Your task to perform on an android device: Search for macbook pro 13 inch on target, select the first entry, add it to the cart, then select checkout. Image 0: 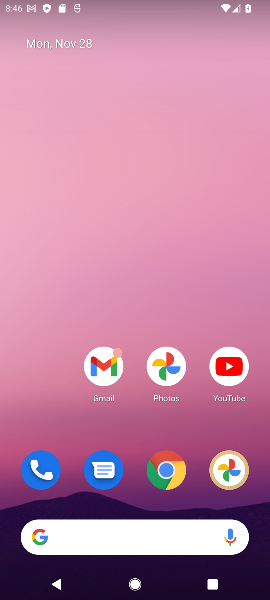
Step 0: click (118, 529)
Your task to perform on an android device: Search for macbook pro 13 inch on target, select the first entry, add it to the cart, then select checkout. Image 1: 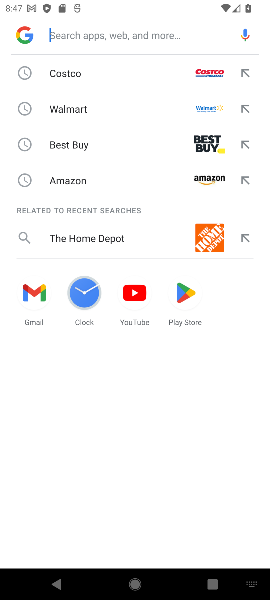
Step 1: press home button
Your task to perform on an android device: Search for macbook pro 13 inch on target, select the first entry, add it to the cart, then select checkout. Image 2: 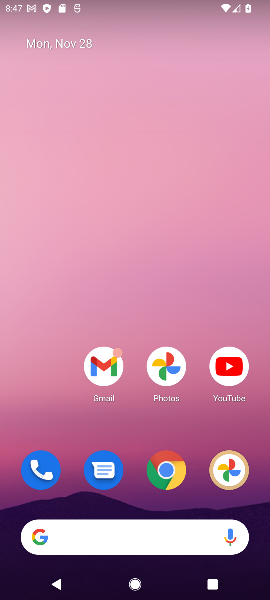
Step 2: click (129, 533)
Your task to perform on an android device: Search for macbook pro 13 inch on target, select the first entry, add it to the cart, then select checkout. Image 3: 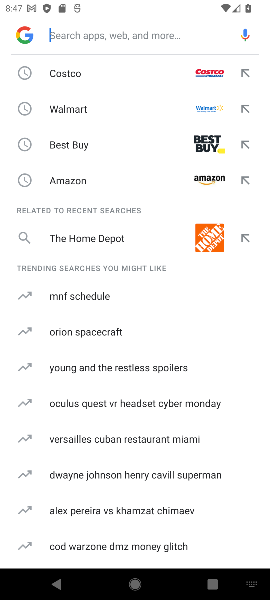
Step 3: type "target"
Your task to perform on an android device: Search for macbook pro 13 inch on target, select the first entry, add it to the cart, then select checkout. Image 4: 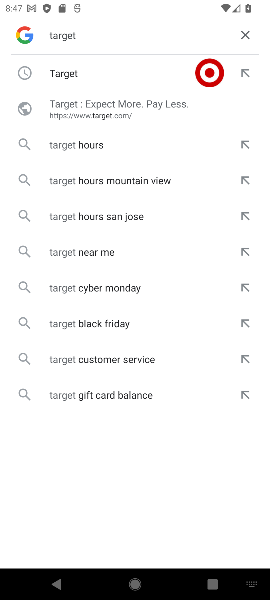
Step 4: click (94, 76)
Your task to perform on an android device: Search for macbook pro 13 inch on target, select the first entry, add it to the cart, then select checkout. Image 5: 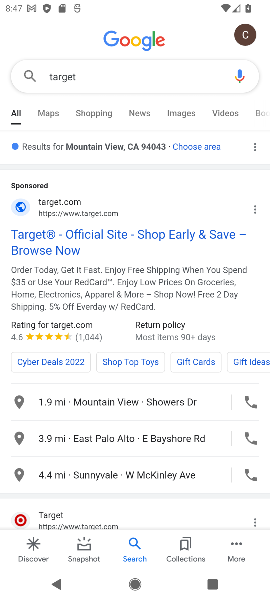
Step 5: drag from (87, 464) to (84, 269)
Your task to perform on an android device: Search for macbook pro 13 inch on target, select the first entry, add it to the cart, then select checkout. Image 6: 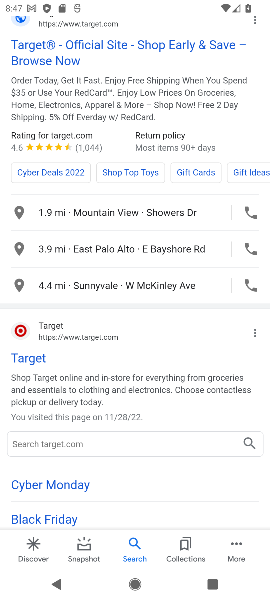
Step 6: click (22, 367)
Your task to perform on an android device: Search for macbook pro 13 inch on target, select the first entry, add it to the cart, then select checkout. Image 7: 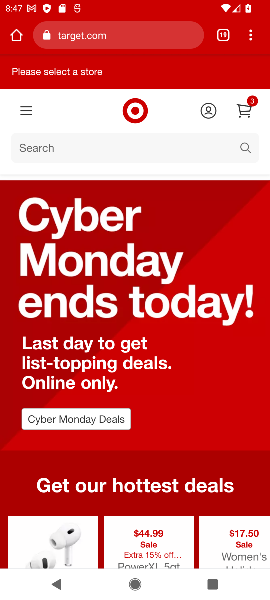
Step 7: click (155, 139)
Your task to perform on an android device: Search for macbook pro 13 inch on target, select the first entry, add it to the cart, then select checkout. Image 8: 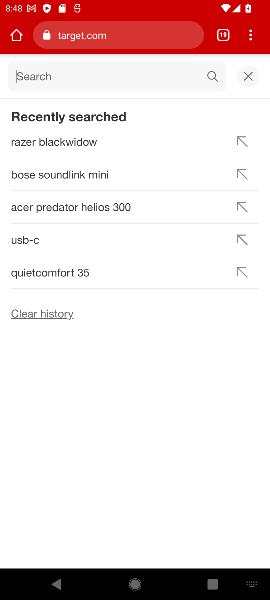
Step 8: type "macbook pro 13 inch "
Your task to perform on an android device: Search for macbook pro 13 inch on target, select the first entry, add it to the cart, then select checkout. Image 9: 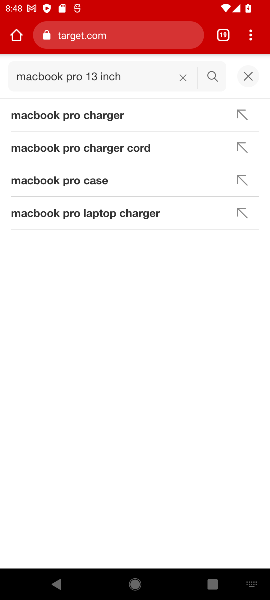
Step 9: click (211, 75)
Your task to perform on an android device: Search for macbook pro 13 inch on target, select the first entry, add it to the cart, then select checkout. Image 10: 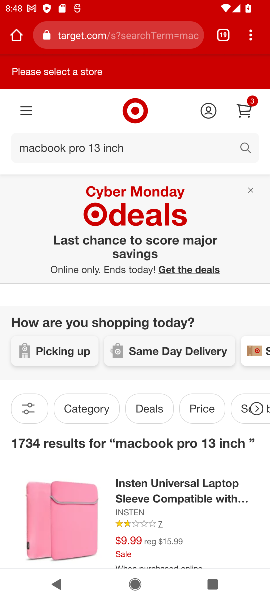
Step 10: drag from (179, 506) to (221, 293)
Your task to perform on an android device: Search for macbook pro 13 inch on target, select the first entry, add it to the cart, then select checkout. Image 11: 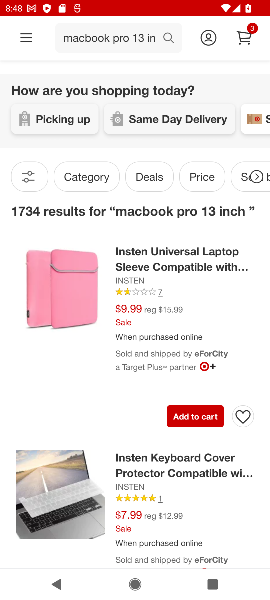
Step 11: click (190, 415)
Your task to perform on an android device: Search for macbook pro 13 inch on target, select the first entry, add it to the cart, then select checkout. Image 12: 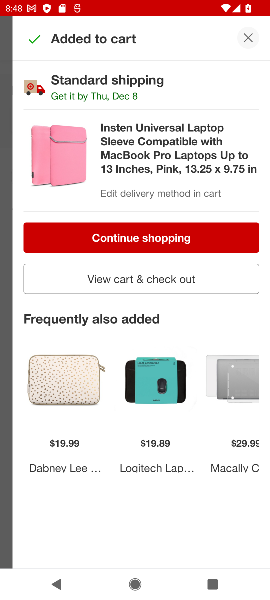
Step 12: click (153, 278)
Your task to perform on an android device: Search for macbook pro 13 inch on target, select the first entry, add it to the cart, then select checkout. Image 13: 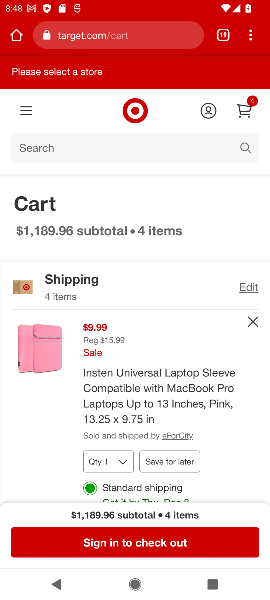
Step 13: click (246, 109)
Your task to perform on an android device: Search for macbook pro 13 inch on target, select the first entry, add it to the cart, then select checkout. Image 14: 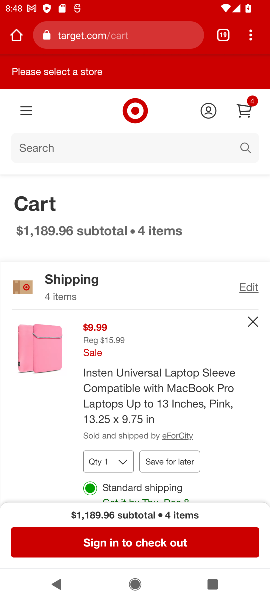
Step 14: click (141, 545)
Your task to perform on an android device: Search for macbook pro 13 inch on target, select the first entry, add it to the cart, then select checkout. Image 15: 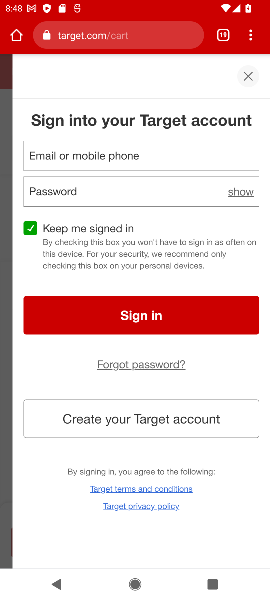
Step 15: task complete